Your task to perform on an android device: Is it going to rain today? Image 0: 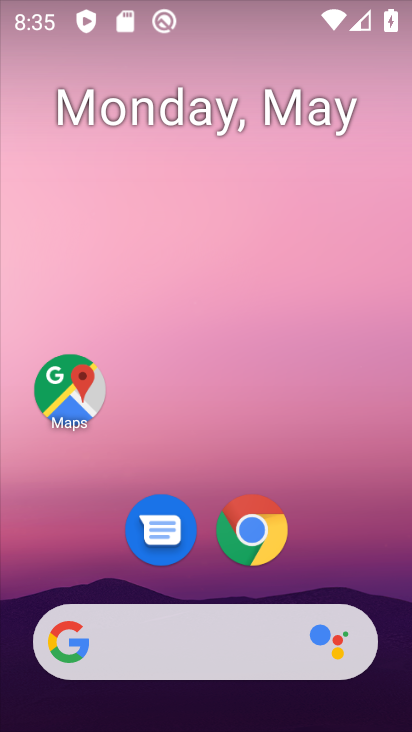
Step 0: drag from (59, 265) to (374, 259)
Your task to perform on an android device: Is it going to rain today? Image 1: 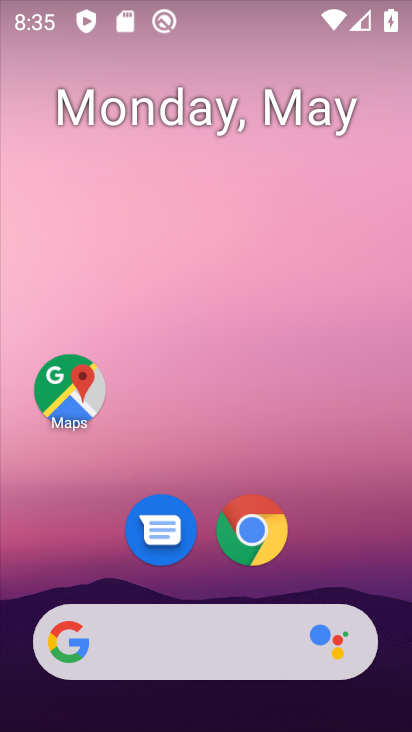
Step 1: drag from (88, 318) to (392, 273)
Your task to perform on an android device: Is it going to rain today? Image 2: 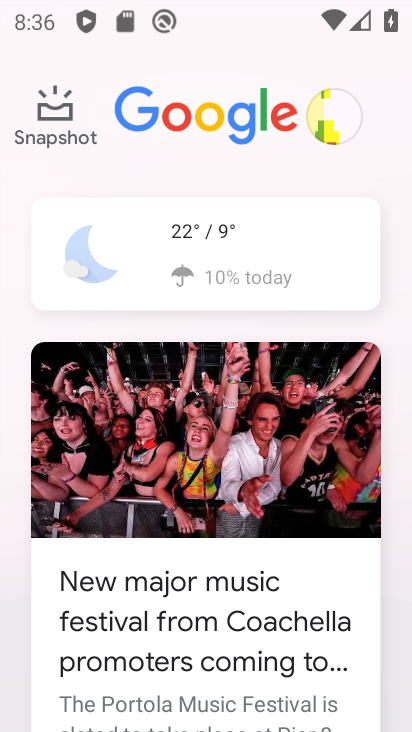
Step 2: click (175, 282)
Your task to perform on an android device: Is it going to rain today? Image 3: 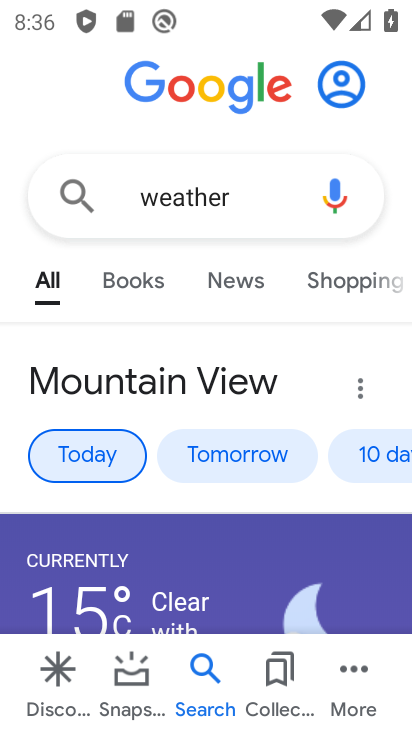
Step 3: task complete